Your task to perform on an android device: turn notification dots on Image 0: 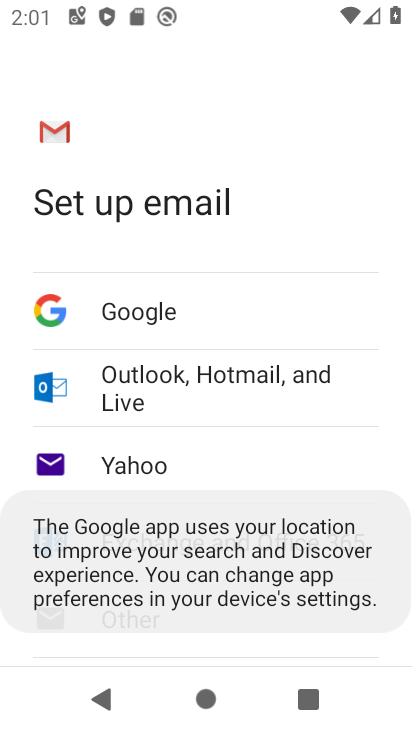
Step 0: press home button
Your task to perform on an android device: turn notification dots on Image 1: 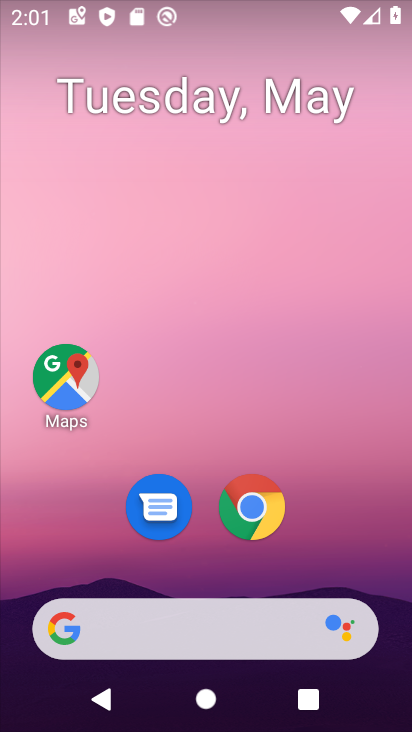
Step 1: drag from (201, 465) to (228, 31)
Your task to perform on an android device: turn notification dots on Image 2: 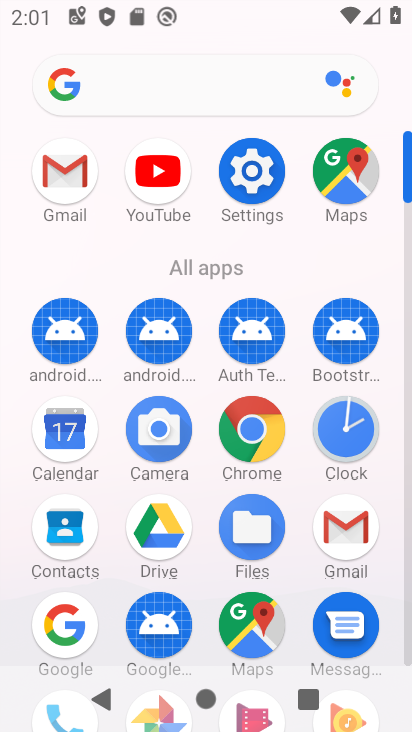
Step 2: click (246, 179)
Your task to perform on an android device: turn notification dots on Image 3: 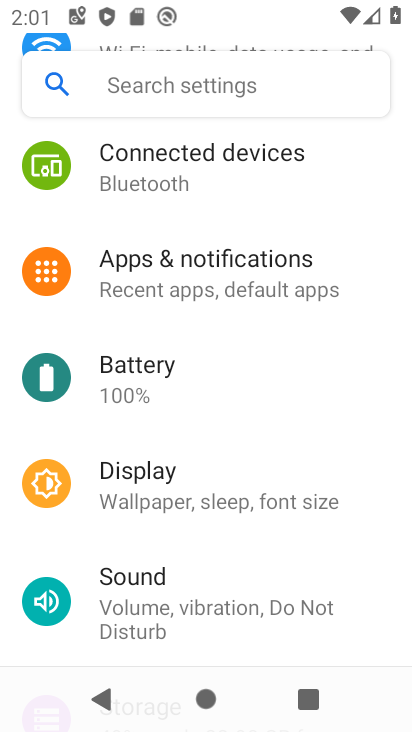
Step 3: click (217, 278)
Your task to perform on an android device: turn notification dots on Image 4: 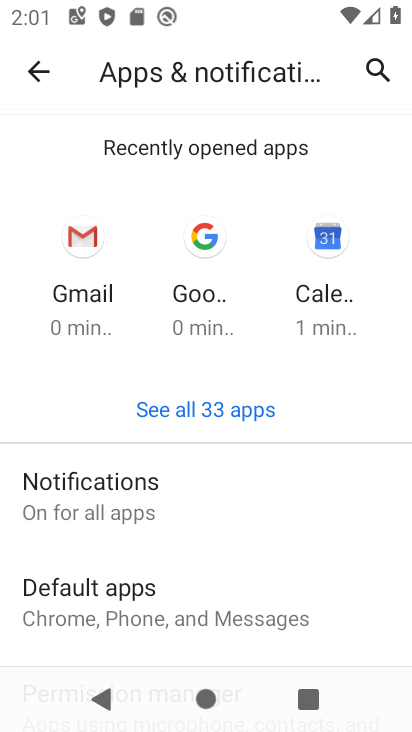
Step 4: click (154, 511)
Your task to perform on an android device: turn notification dots on Image 5: 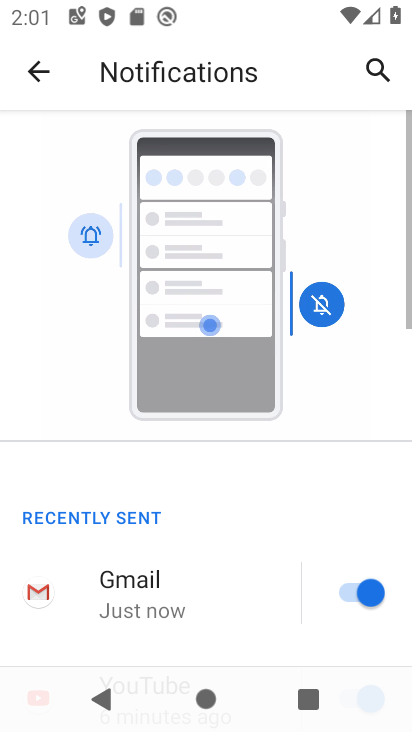
Step 5: drag from (194, 570) to (200, 372)
Your task to perform on an android device: turn notification dots on Image 6: 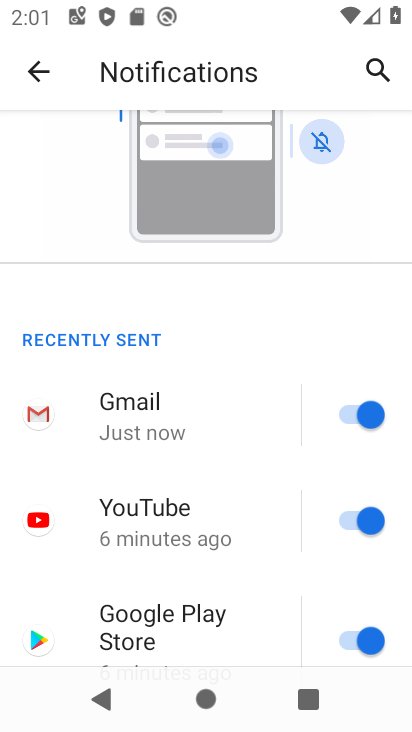
Step 6: drag from (183, 556) to (190, 264)
Your task to perform on an android device: turn notification dots on Image 7: 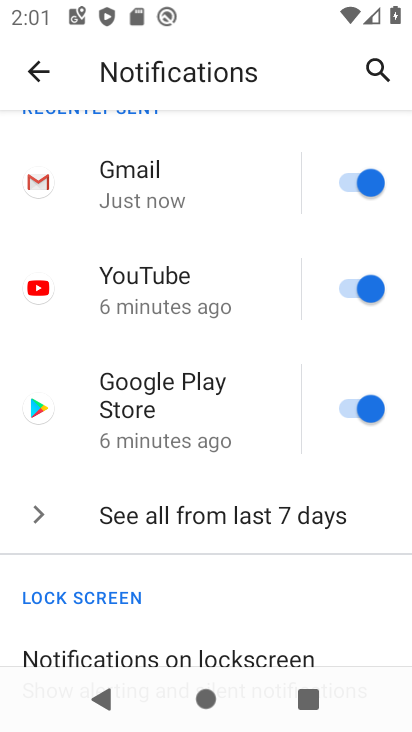
Step 7: drag from (180, 589) to (202, 332)
Your task to perform on an android device: turn notification dots on Image 8: 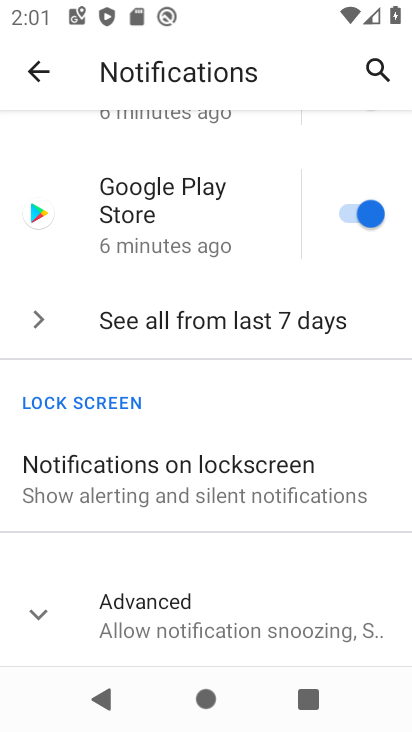
Step 8: click (171, 610)
Your task to perform on an android device: turn notification dots on Image 9: 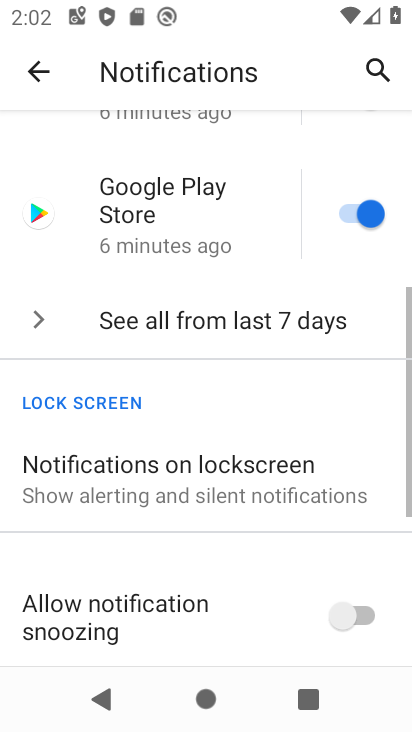
Step 9: task complete